Your task to perform on an android device: toggle location history Image 0: 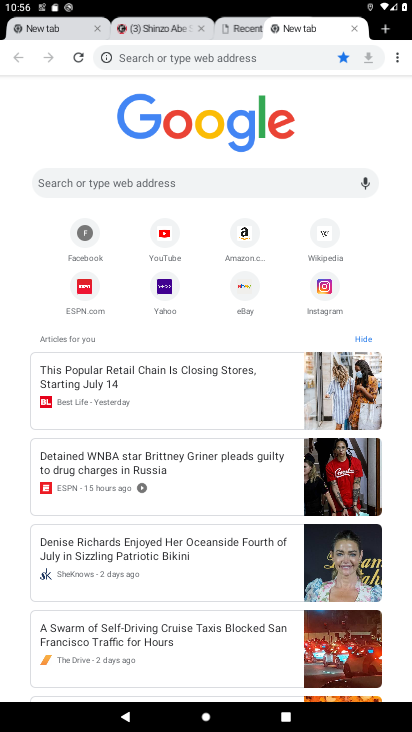
Step 0: press home button
Your task to perform on an android device: toggle location history Image 1: 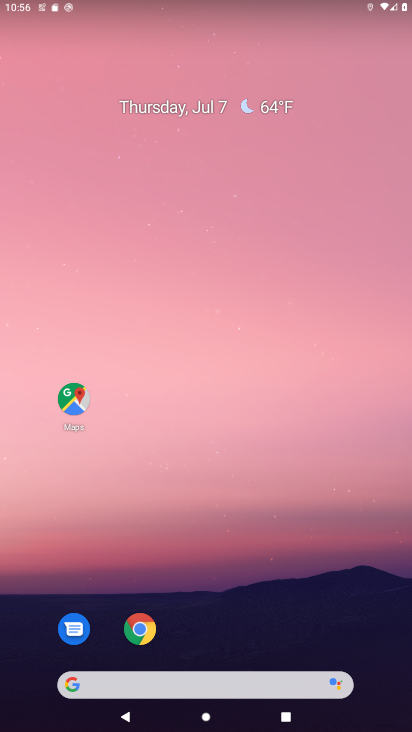
Step 1: drag from (206, 577) to (209, 135)
Your task to perform on an android device: toggle location history Image 2: 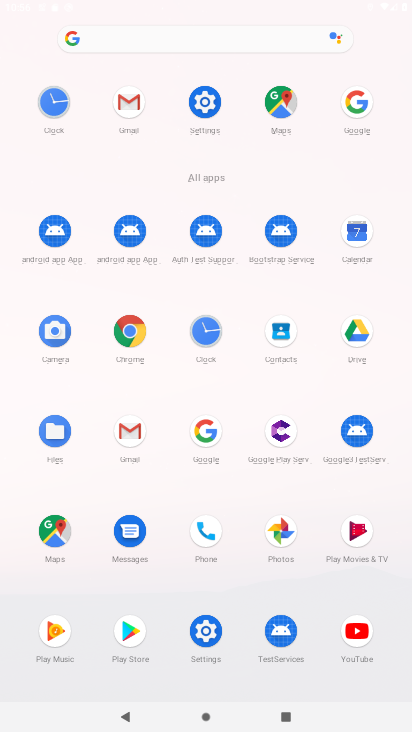
Step 2: click (204, 100)
Your task to perform on an android device: toggle location history Image 3: 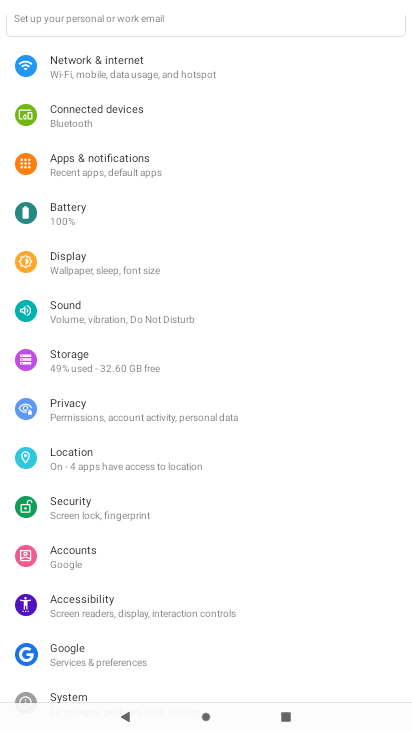
Step 3: click (80, 457)
Your task to perform on an android device: toggle location history Image 4: 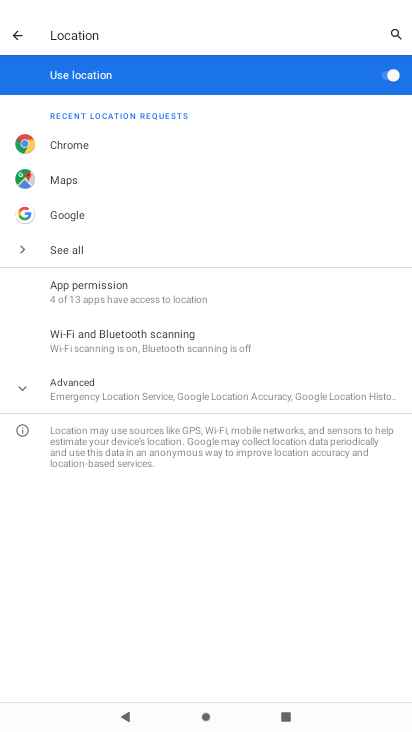
Step 4: click (108, 391)
Your task to perform on an android device: toggle location history Image 5: 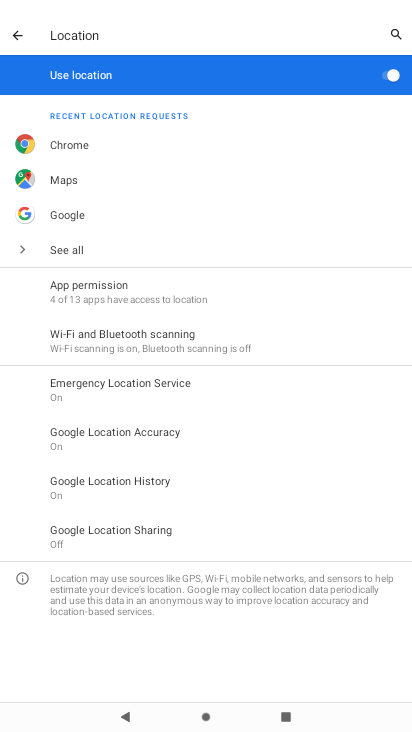
Step 5: click (157, 480)
Your task to perform on an android device: toggle location history Image 6: 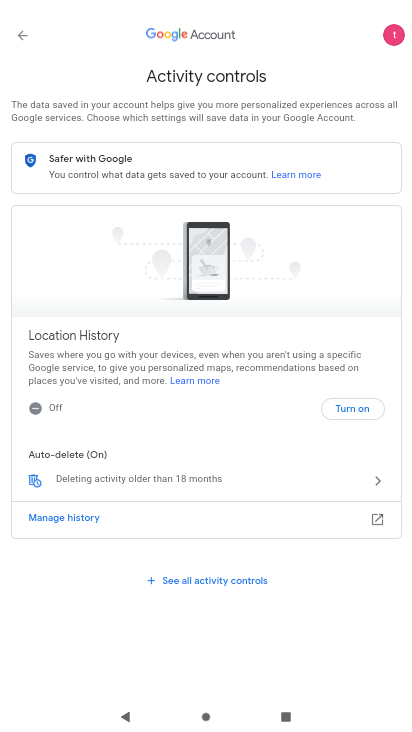
Step 6: click (348, 413)
Your task to perform on an android device: toggle location history Image 7: 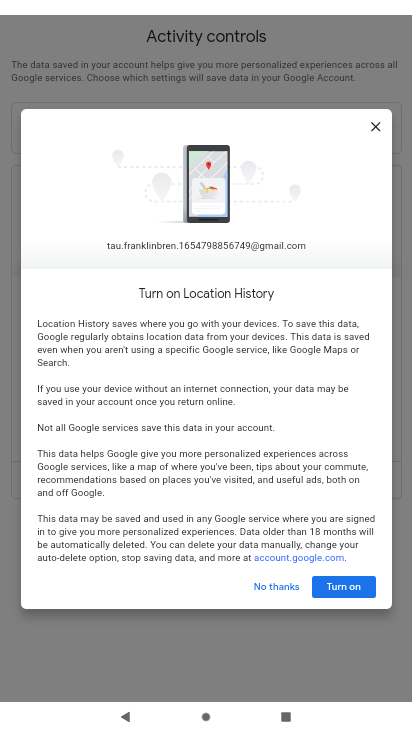
Step 7: click (334, 583)
Your task to perform on an android device: toggle location history Image 8: 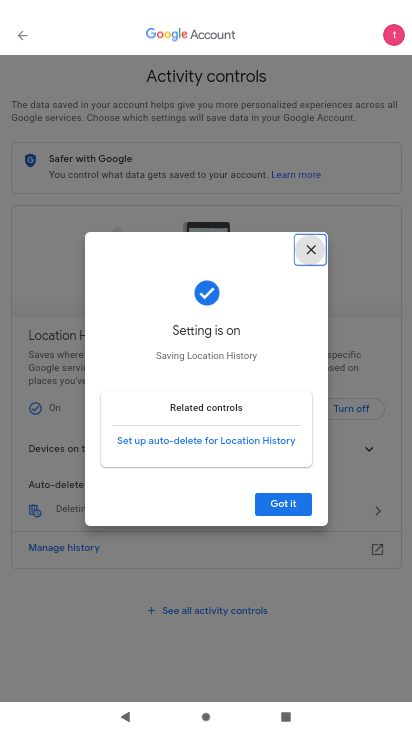
Step 8: click (288, 505)
Your task to perform on an android device: toggle location history Image 9: 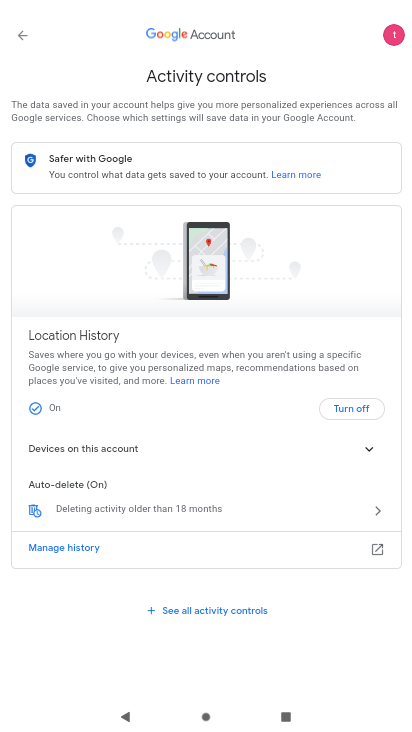
Step 9: task complete